Your task to perform on an android device: Go to eBay Image 0: 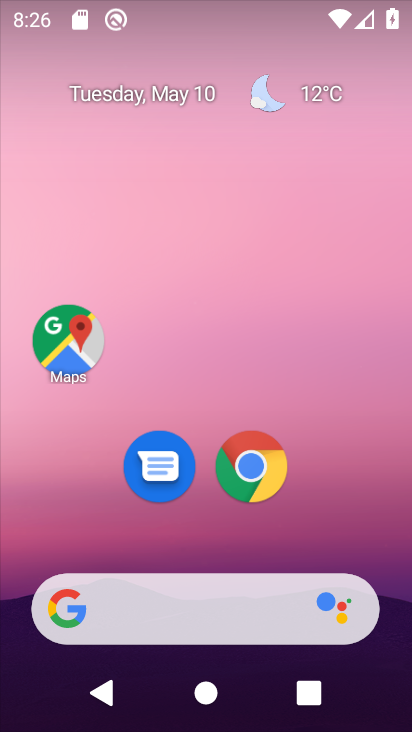
Step 0: click (254, 467)
Your task to perform on an android device: Go to eBay Image 1: 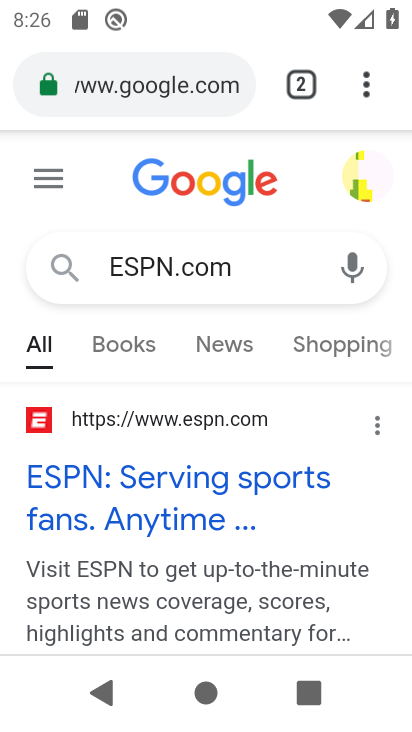
Step 1: click (185, 87)
Your task to perform on an android device: Go to eBay Image 2: 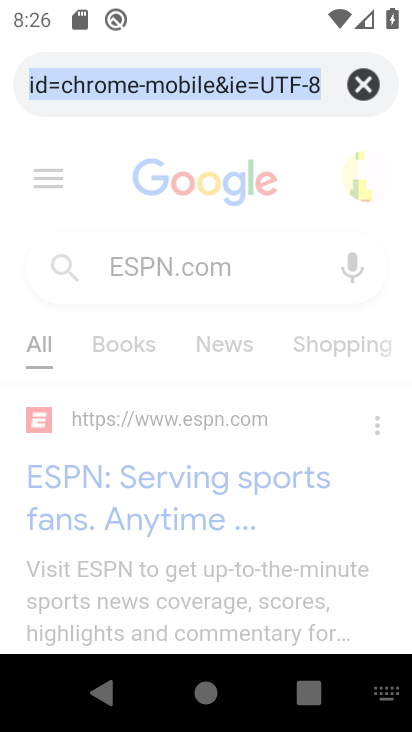
Step 2: type "eBay"
Your task to perform on an android device: Go to eBay Image 3: 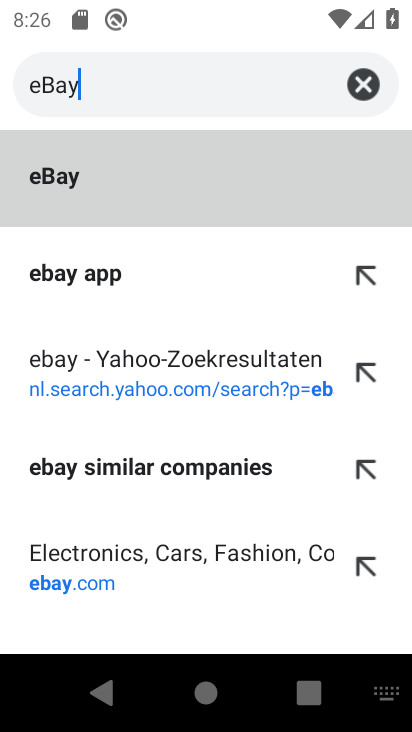
Step 3: click (199, 195)
Your task to perform on an android device: Go to eBay Image 4: 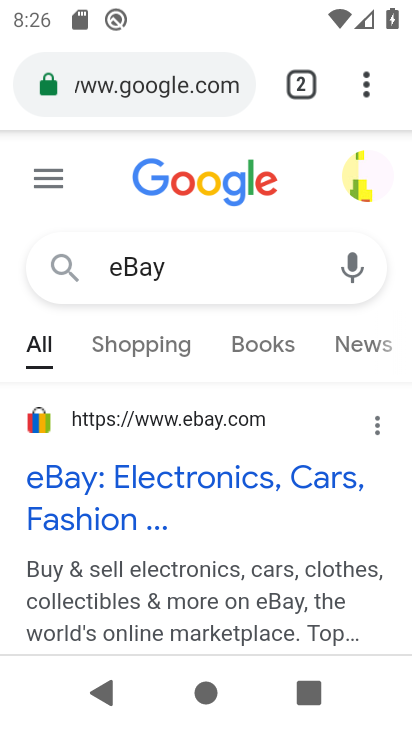
Step 4: task complete